Your task to perform on an android device: add a contact Image 0: 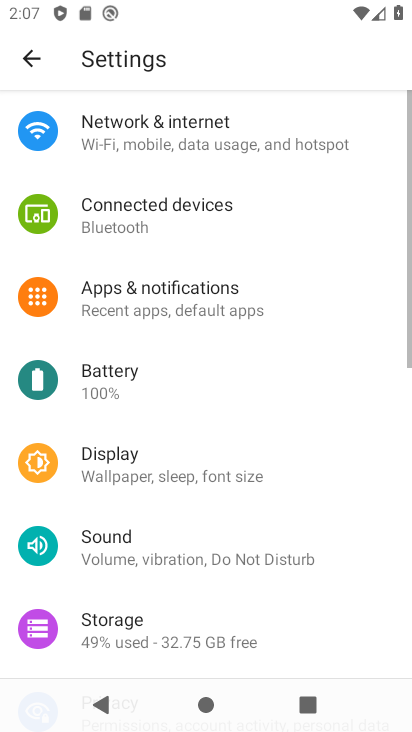
Step 0: press back button
Your task to perform on an android device: add a contact Image 1: 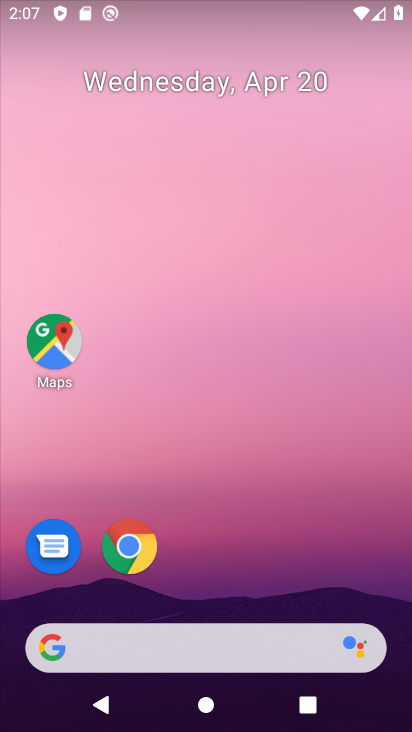
Step 1: drag from (183, 561) to (313, 80)
Your task to perform on an android device: add a contact Image 2: 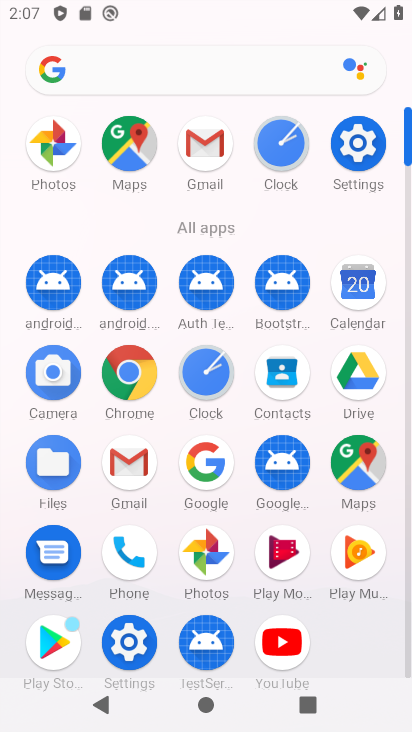
Step 2: click (291, 381)
Your task to perform on an android device: add a contact Image 3: 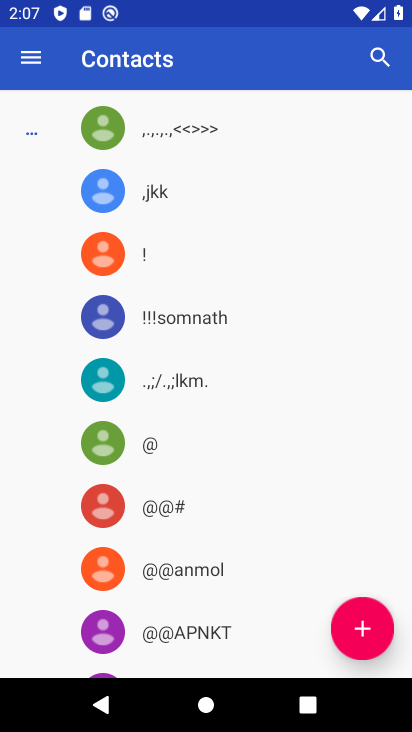
Step 3: click (365, 638)
Your task to perform on an android device: add a contact Image 4: 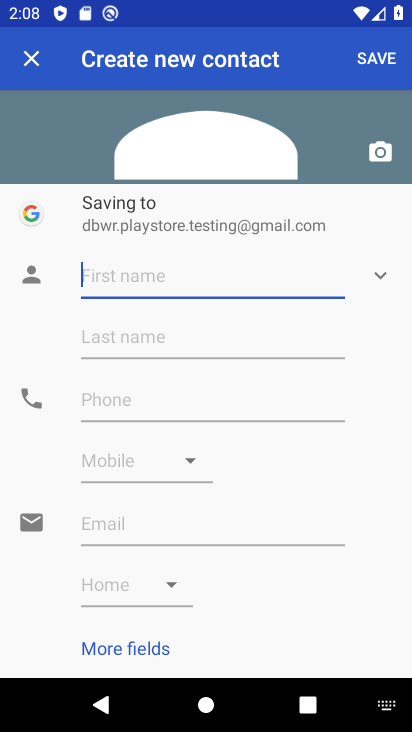
Step 4: type "riri"
Your task to perform on an android device: add a contact Image 5: 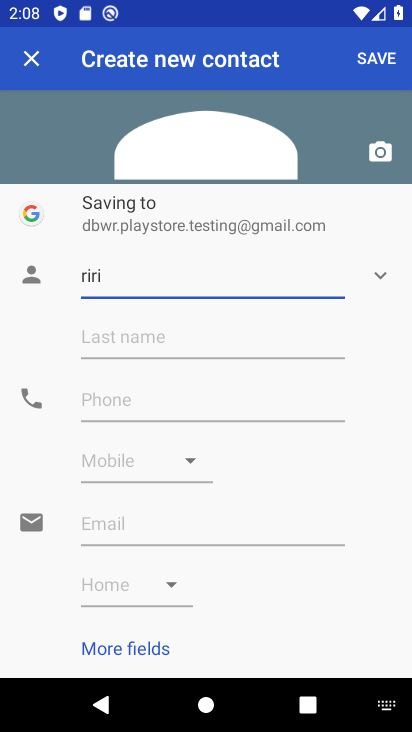
Step 5: click (134, 407)
Your task to perform on an android device: add a contact Image 6: 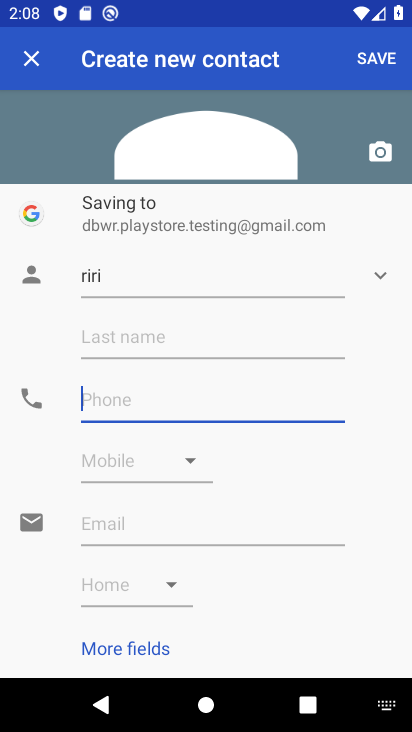
Step 6: type "282328231"
Your task to perform on an android device: add a contact Image 7: 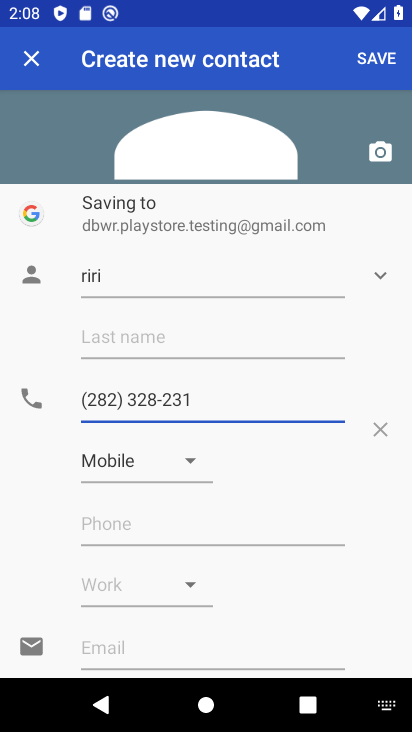
Step 7: type "2"
Your task to perform on an android device: add a contact Image 8: 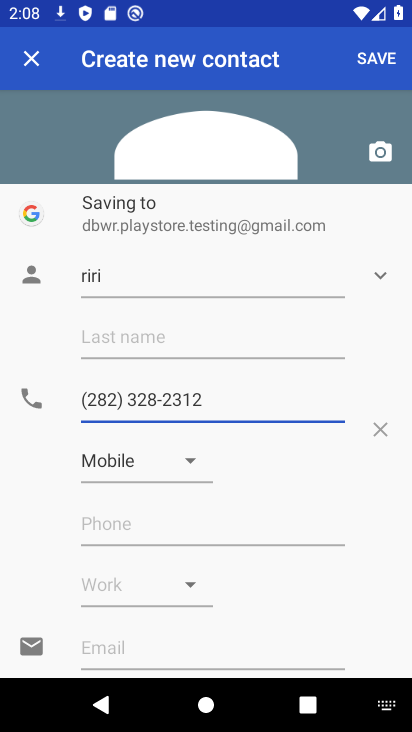
Step 8: click (385, 66)
Your task to perform on an android device: add a contact Image 9: 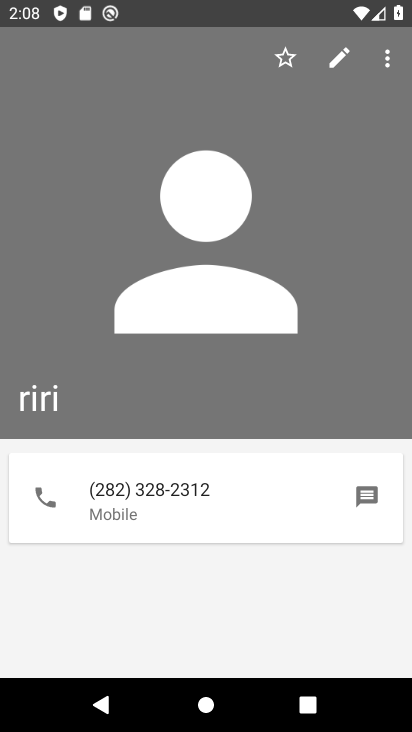
Step 9: task complete